Your task to perform on an android device: Go to internet settings Image 0: 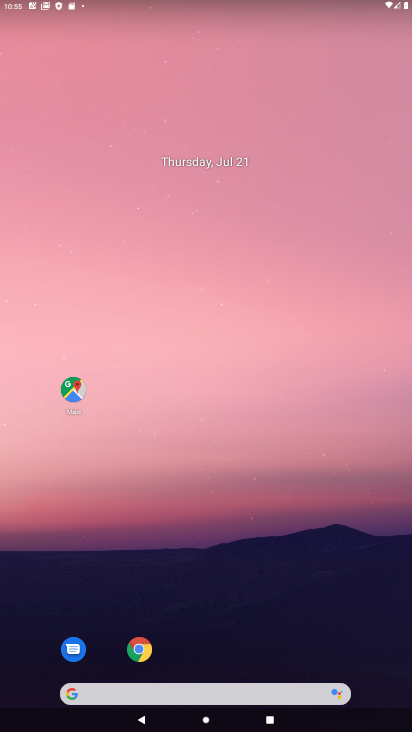
Step 0: drag from (265, 660) to (294, 3)
Your task to perform on an android device: Go to internet settings Image 1: 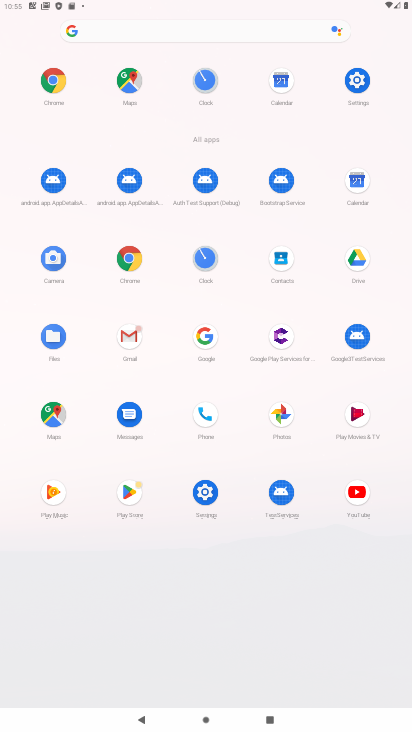
Step 1: click (353, 77)
Your task to perform on an android device: Go to internet settings Image 2: 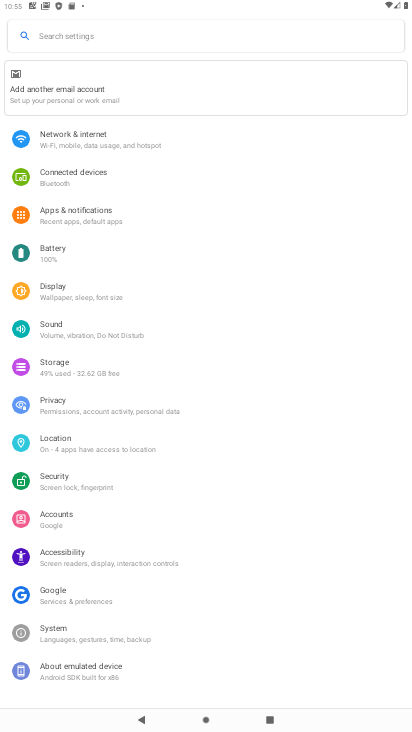
Step 2: click (125, 145)
Your task to perform on an android device: Go to internet settings Image 3: 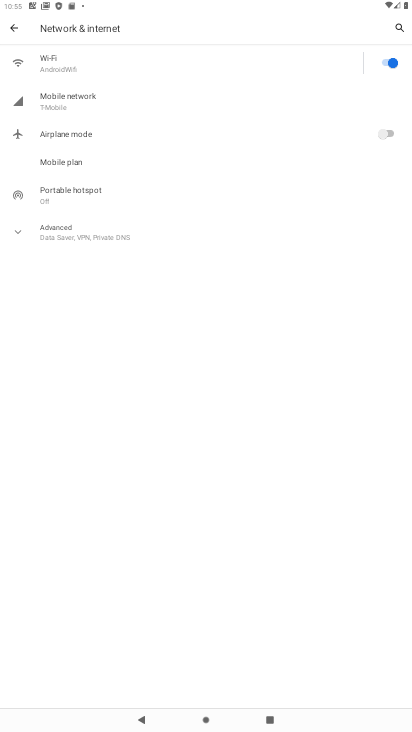
Step 3: click (65, 101)
Your task to perform on an android device: Go to internet settings Image 4: 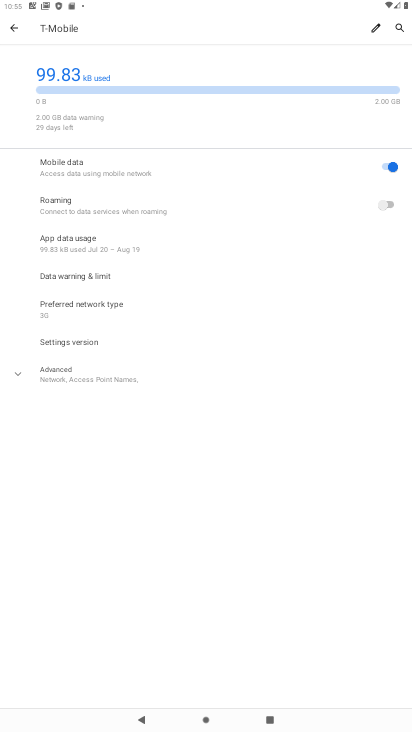
Step 4: task complete